Your task to perform on an android device: turn off picture-in-picture Image 0: 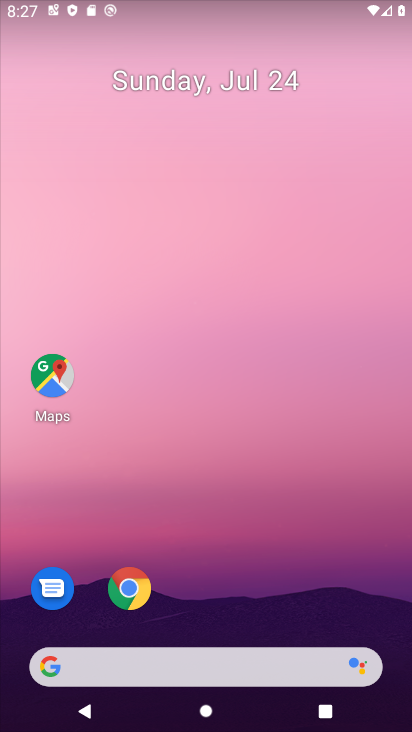
Step 0: click (120, 594)
Your task to perform on an android device: turn off picture-in-picture Image 1: 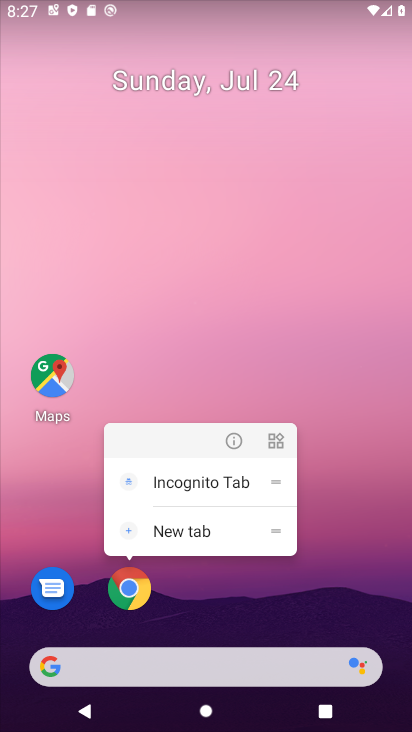
Step 1: click (230, 429)
Your task to perform on an android device: turn off picture-in-picture Image 2: 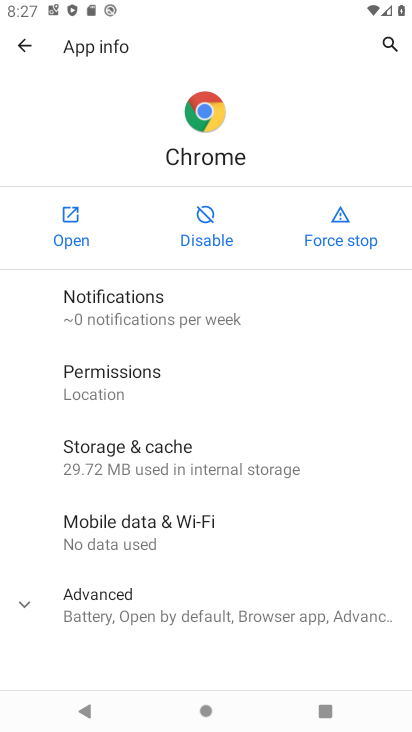
Step 2: click (201, 603)
Your task to perform on an android device: turn off picture-in-picture Image 3: 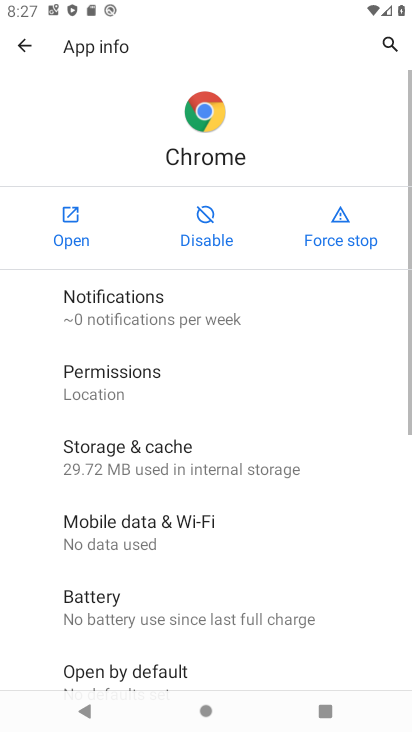
Step 3: drag from (239, 565) to (250, 48)
Your task to perform on an android device: turn off picture-in-picture Image 4: 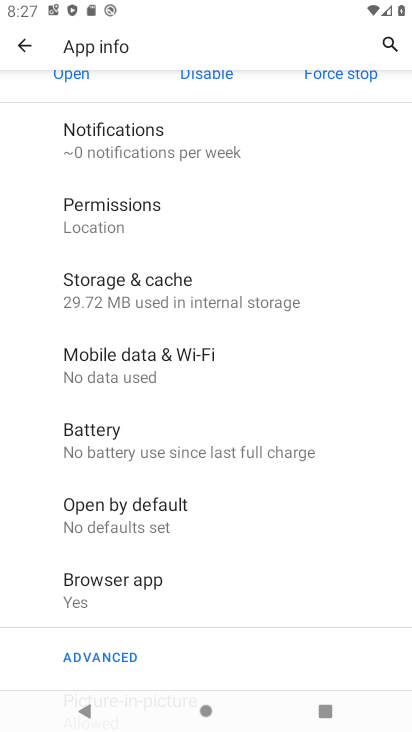
Step 4: drag from (209, 606) to (217, 25)
Your task to perform on an android device: turn off picture-in-picture Image 5: 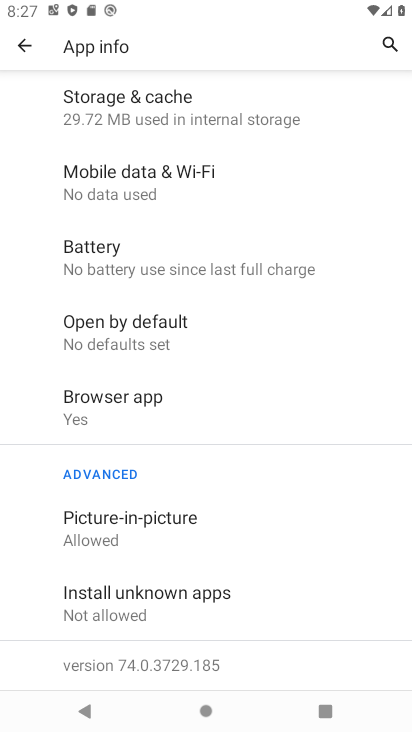
Step 5: click (151, 522)
Your task to perform on an android device: turn off picture-in-picture Image 6: 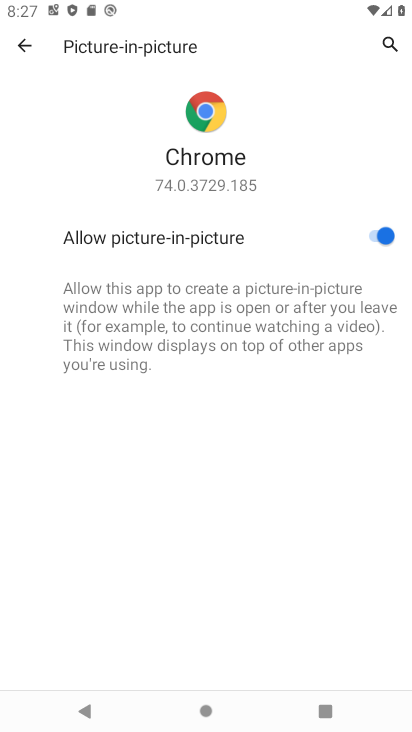
Step 6: click (382, 230)
Your task to perform on an android device: turn off picture-in-picture Image 7: 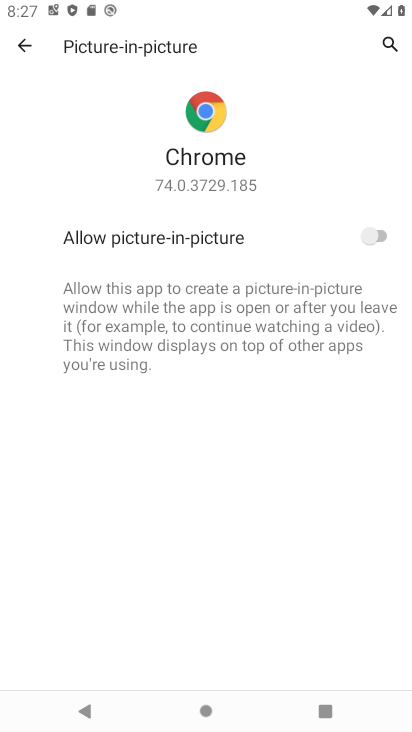
Step 7: task complete